Your task to perform on an android device: set an alarm Image 0: 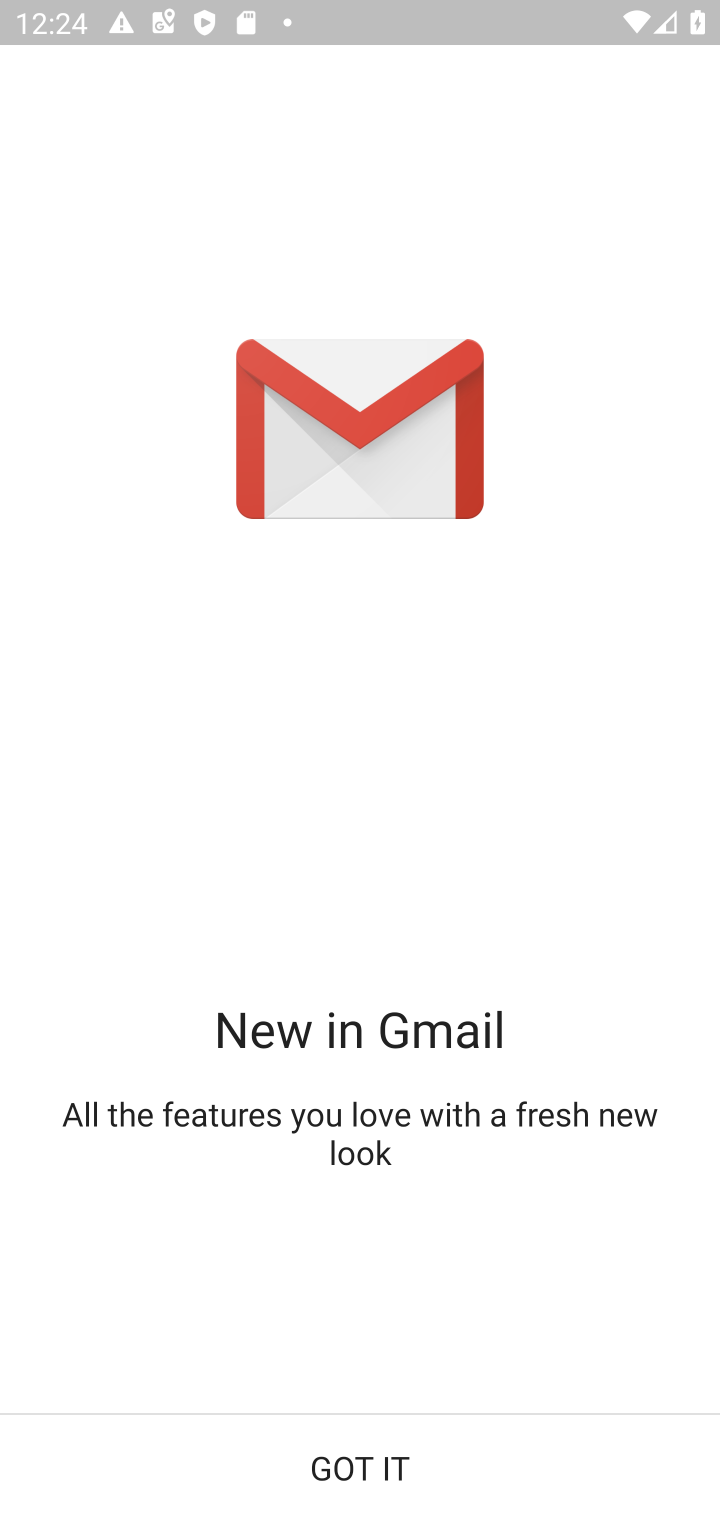
Step 0: press home button
Your task to perform on an android device: set an alarm Image 1: 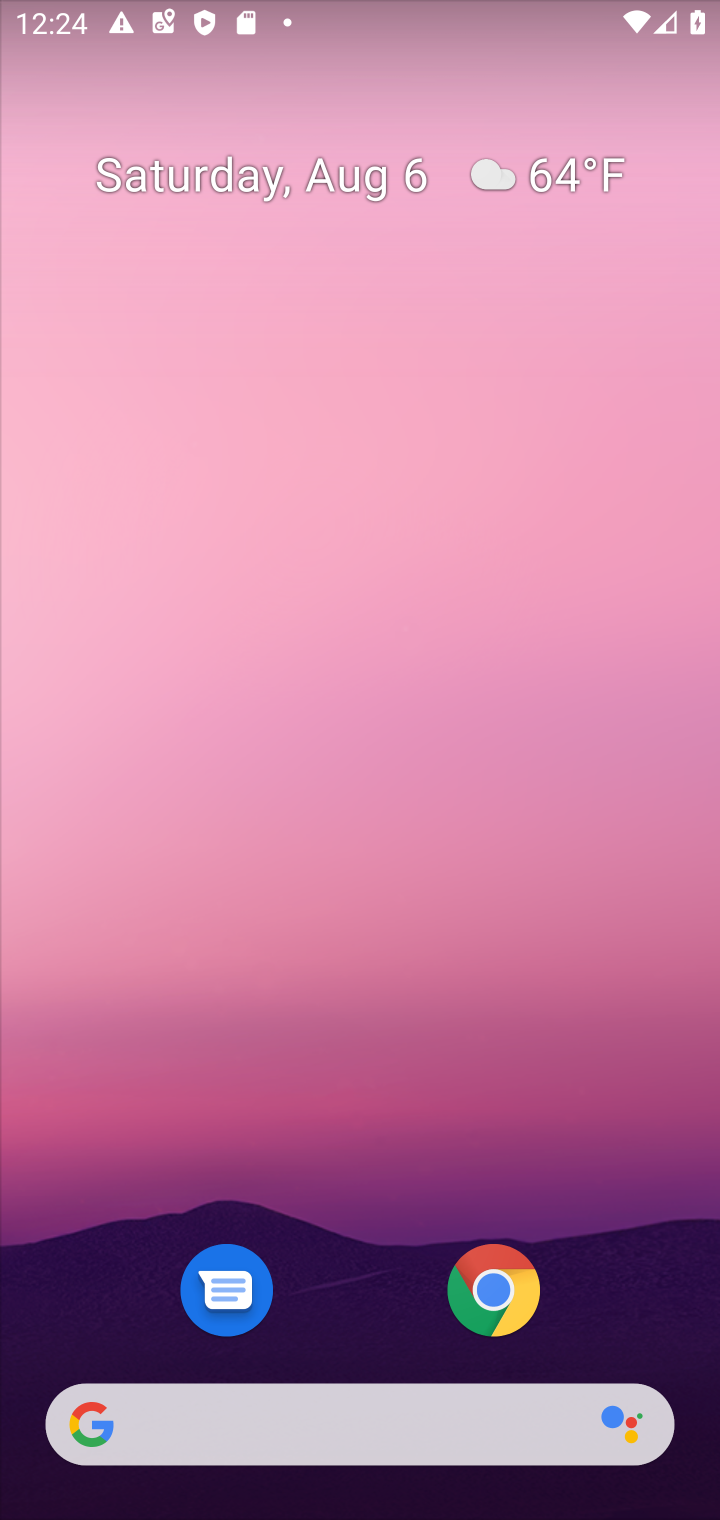
Step 1: drag from (329, 1309) to (313, 75)
Your task to perform on an android device: set an alarm Image 2: 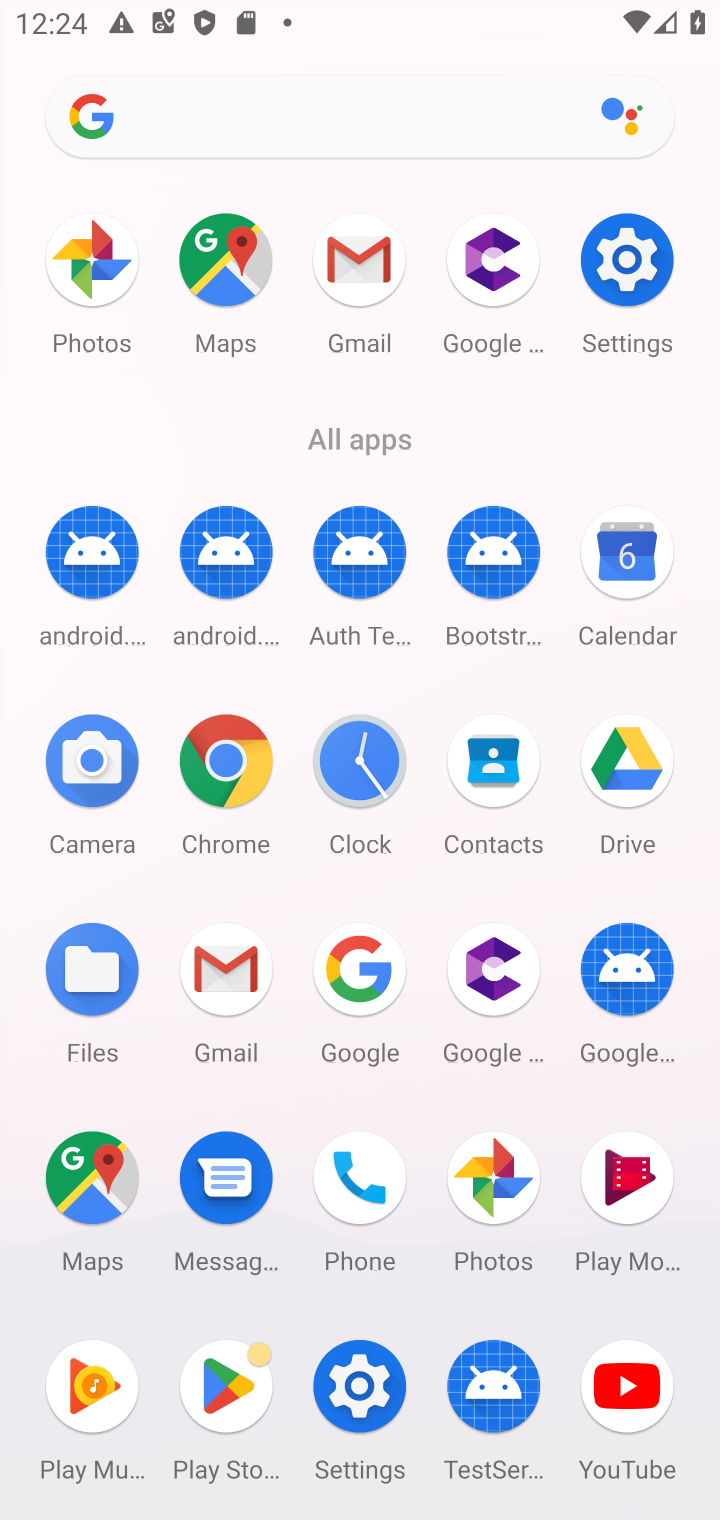
Step 2: click (360, 744)
Your task to perform on an android device: set an alarm Image 3: 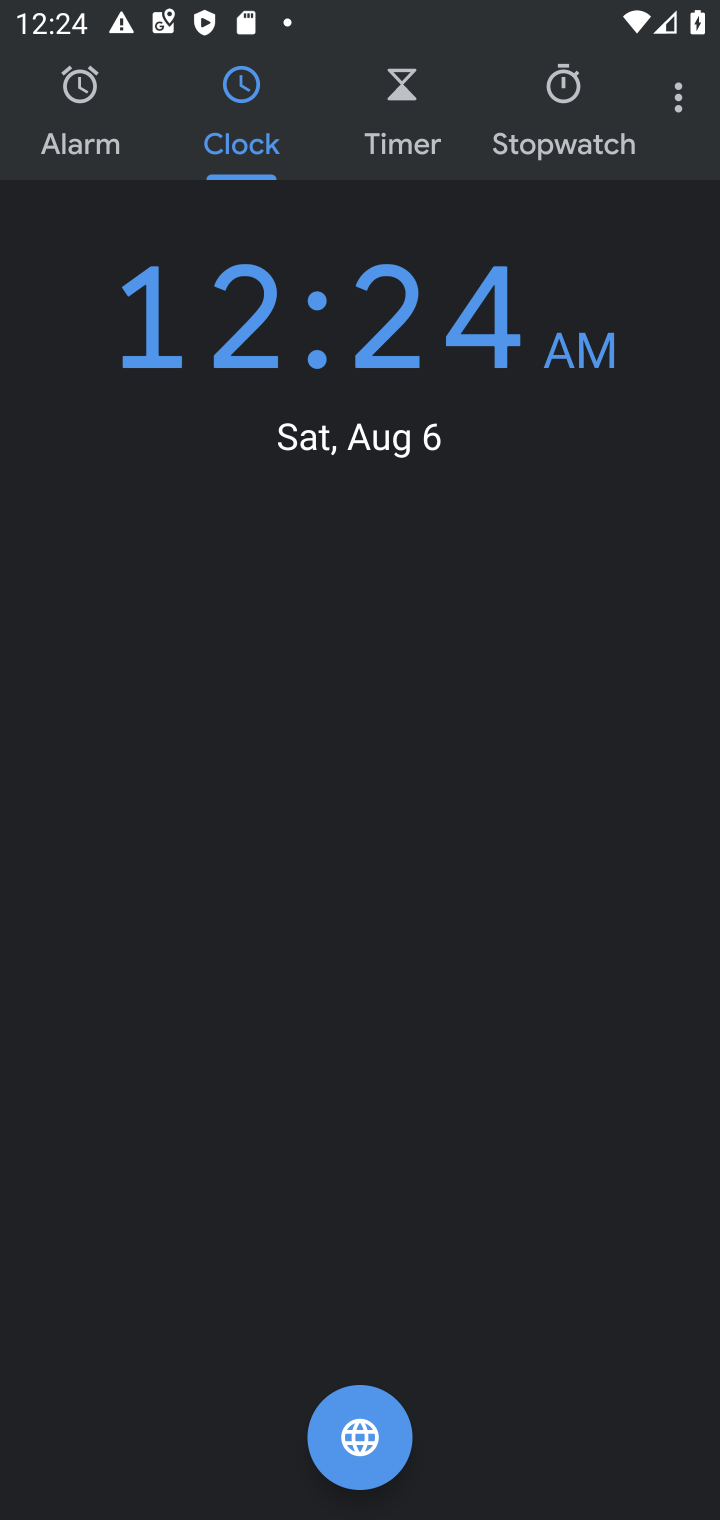
Step 3: click (81, 80)
Your task to perform on an android device: set an alarm Image 4: 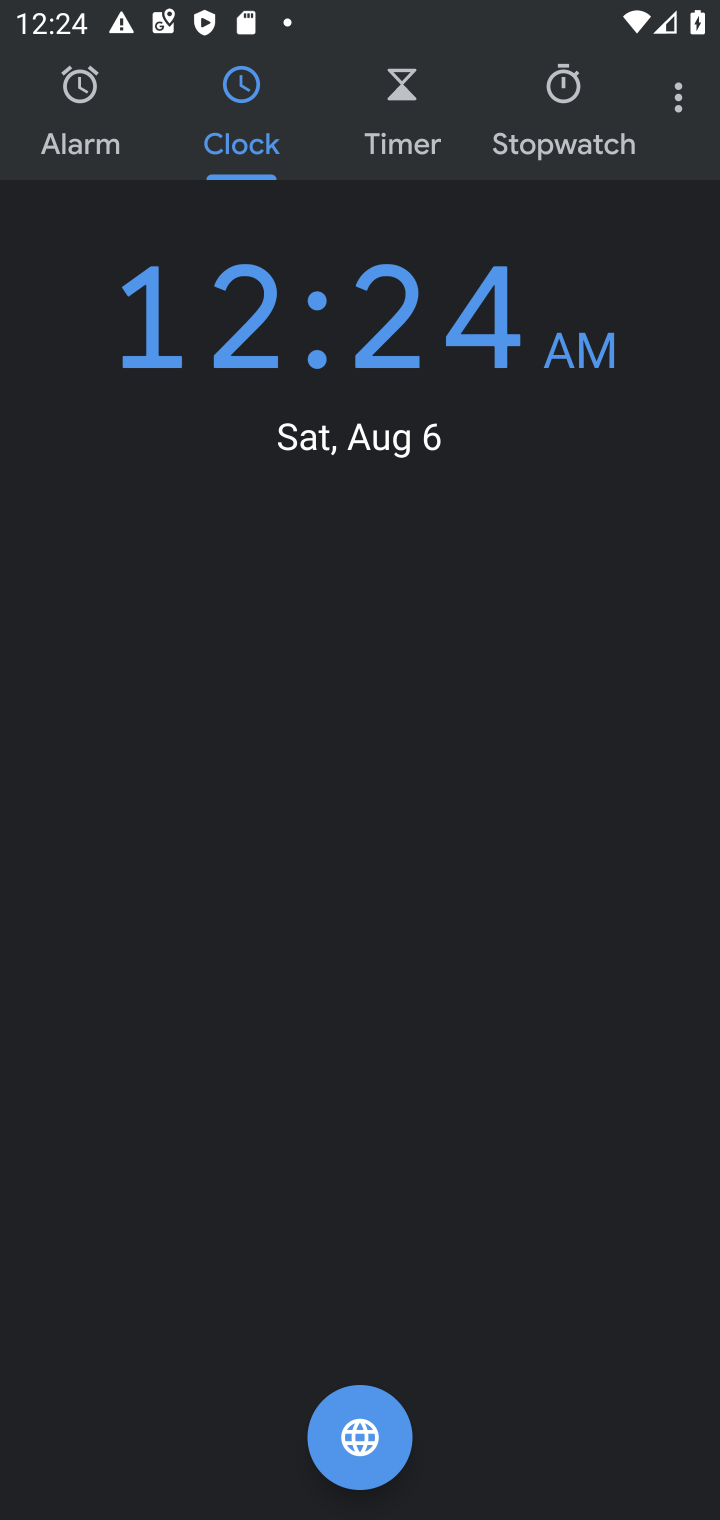
Step 4: click (78, 108)
Your task to perform on an android device: set an alarm Image 5: 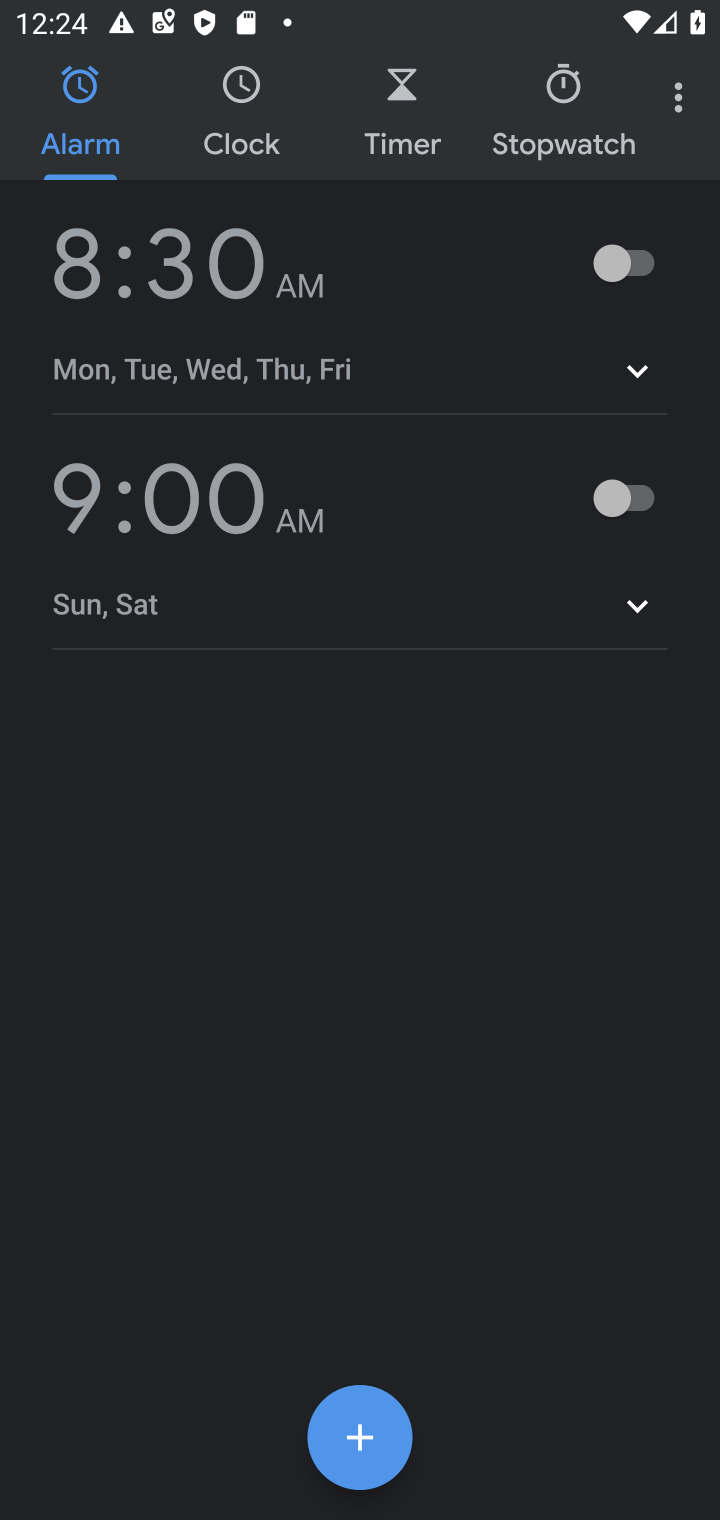
Step 5: click (623, 263)
Your task to perform on an android device: set an alarm Image 6: 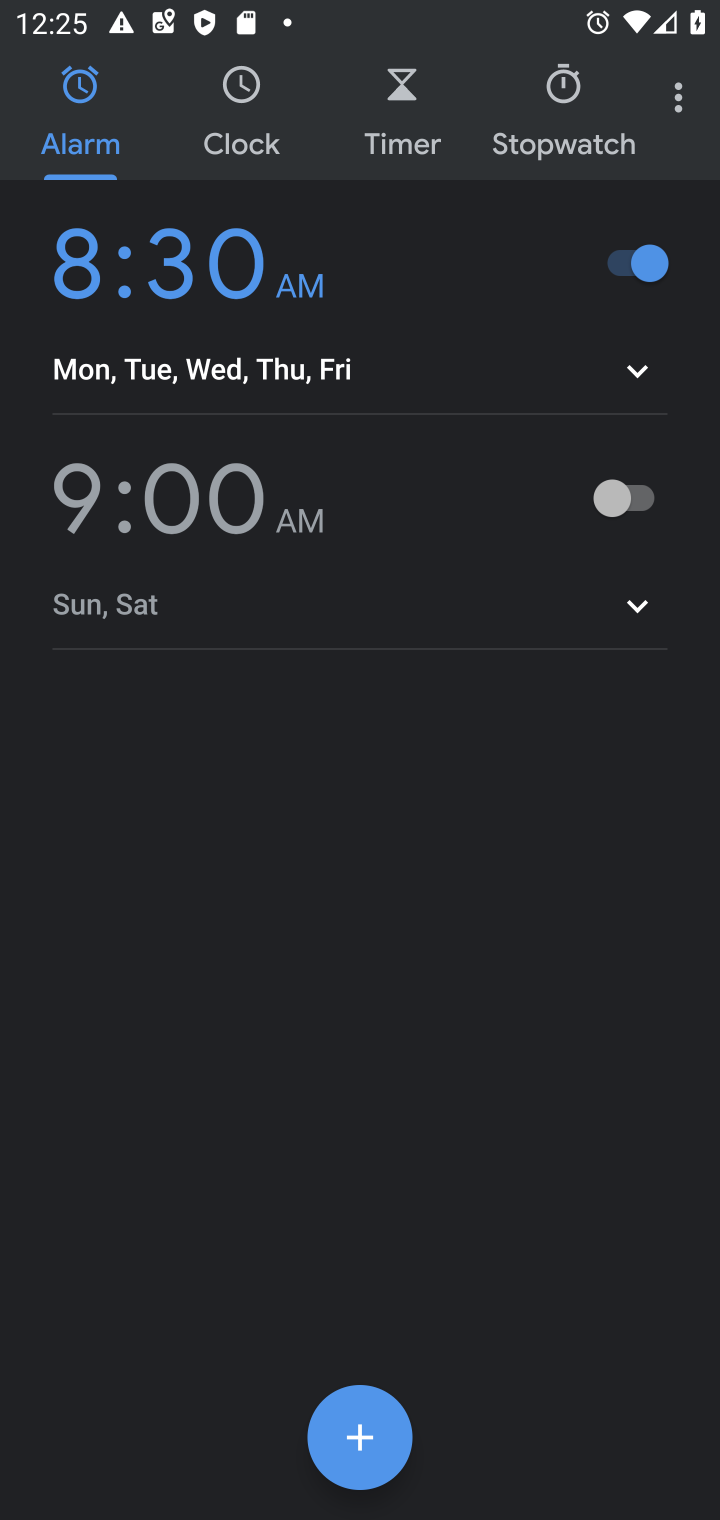
Step 6: click (635, 494)
Your task to perform on an android device: set an alarm Image 7: 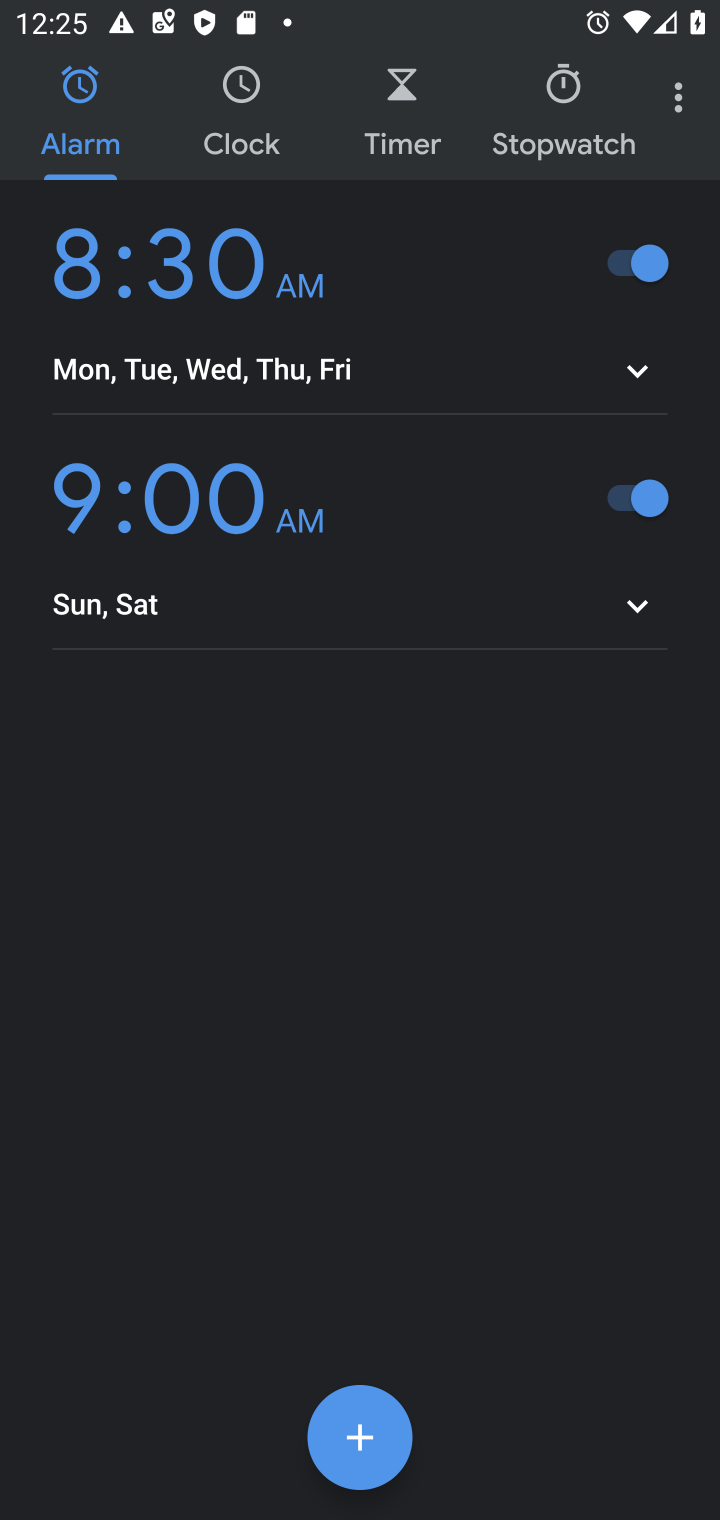
Step 7: task complete